Your task to perform on an android device: turn on data saver in the chrome app Image 0: 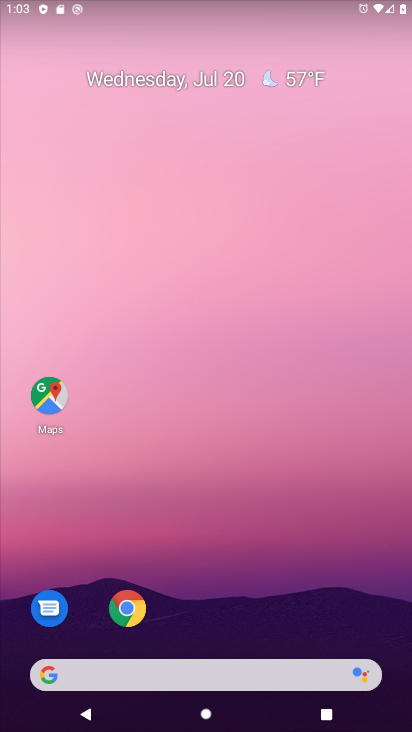
Step 0: click (136, 614)
Your task to perform on an android device: turn on data saver in the chrome app Image 1: 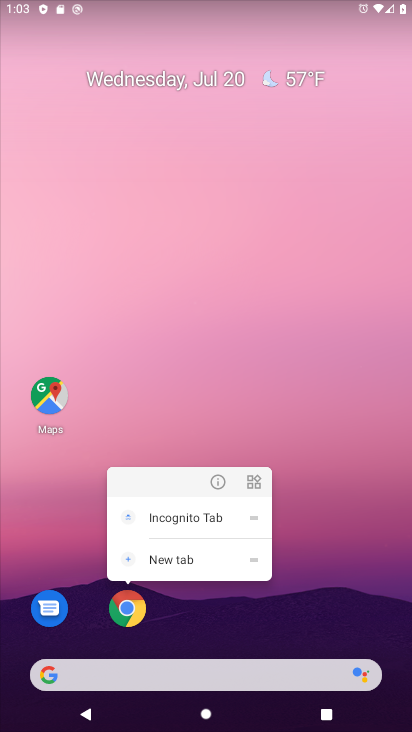
Step 1: click (136, 614)
Your task to perform on an android device: turn on data saver in the chrome app Image 2: 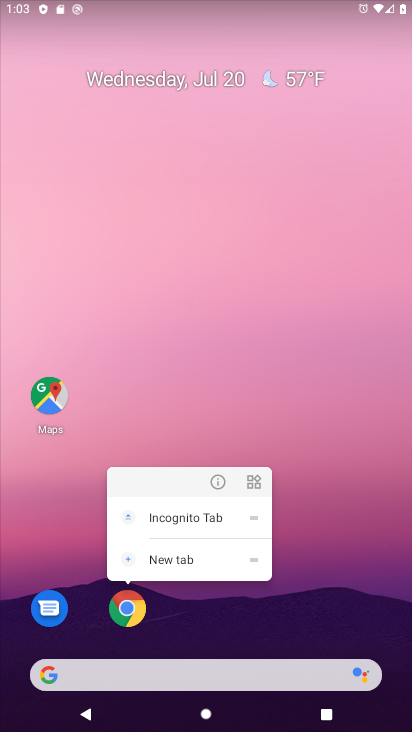
Step 2: click (136, 614)
Your task to perform on an android device: turn on data saver in the chrome app Image 3: 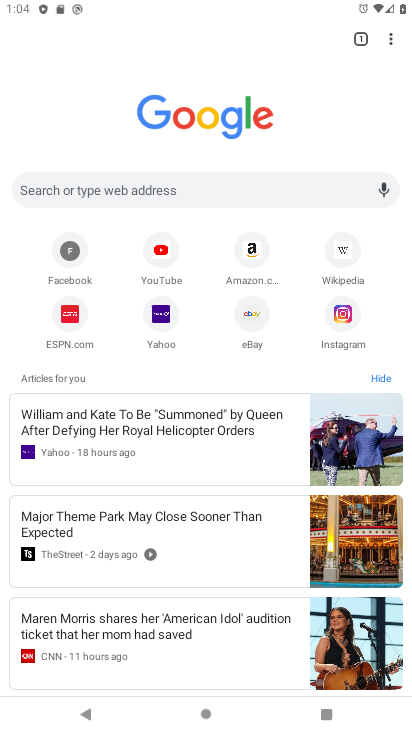
Step 3: click (392, 30)
Your task to perform on an android device: turn on data saver in the chrome app Image 4: 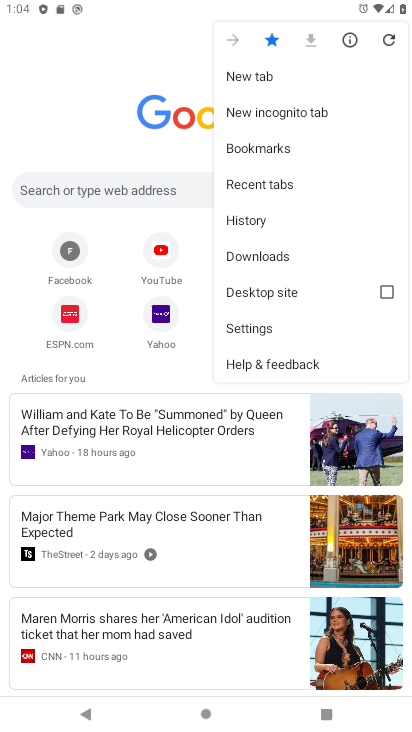
Step 4: click (247, 327)
Your task to perform on an android device: turn on data saver in the chrome app Image 5: 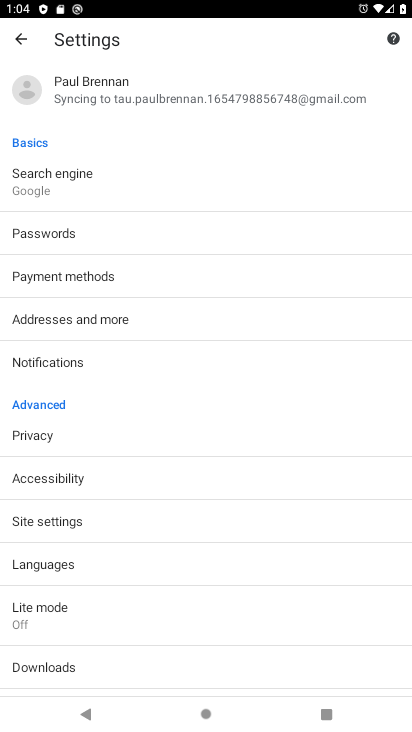
Step 5: click (41, 624)
Your task to perform on an android device: turn on data saver in the chrome app Image 6: 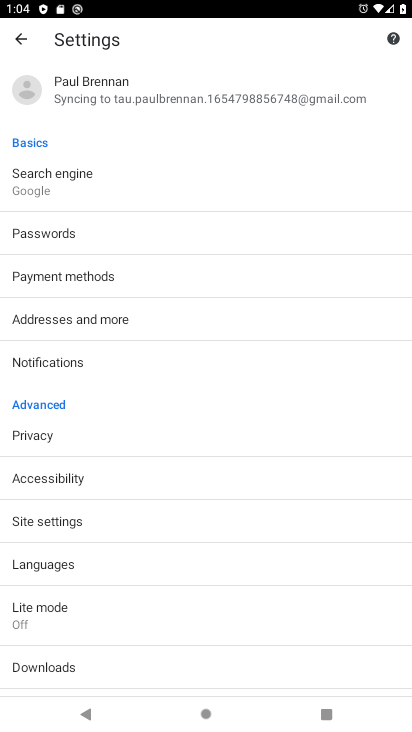
Step 6: click (41, 624)
Your task to perform on an android device: turn on data saver in the chrome app Image 7: 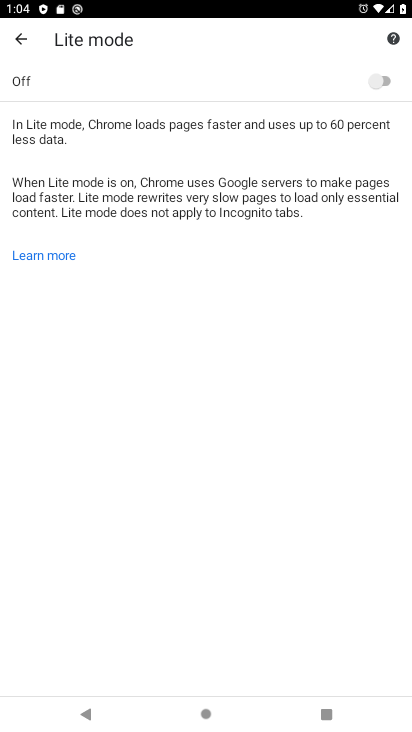
Step 7: click (376, 75)
Your task to perform on an android device: turn on data saver in the chrome app Image 8: 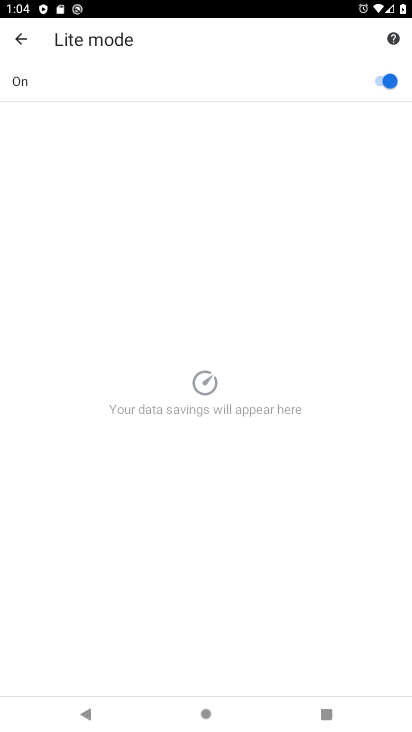
Step 8: task complete